Your task to perform on an android device: turn on showing notifications on the lock screen Image 0: 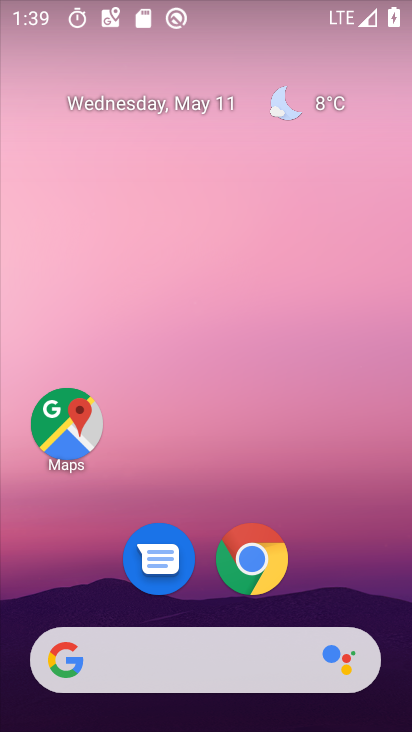
Step 0: drag from (159, 722) to (156, 223)
Your task to perform on an android device: turn on showing notifications on the lock screen Image 1: 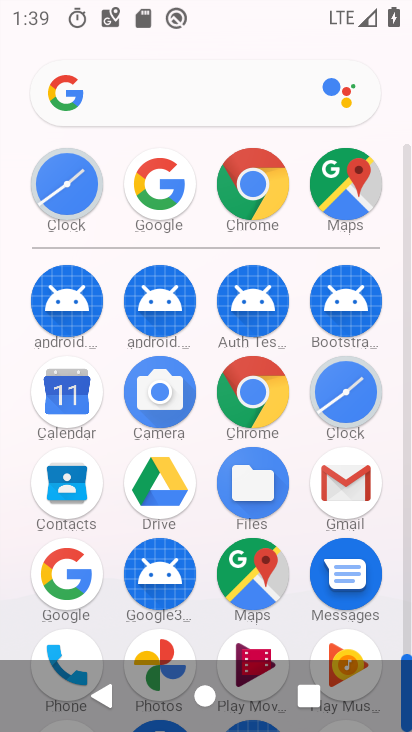
Step 1: drag from (209, 612) to (219, 235)
Your task to perform on an android device: turn on showing notifications on the lock screen Image 2: 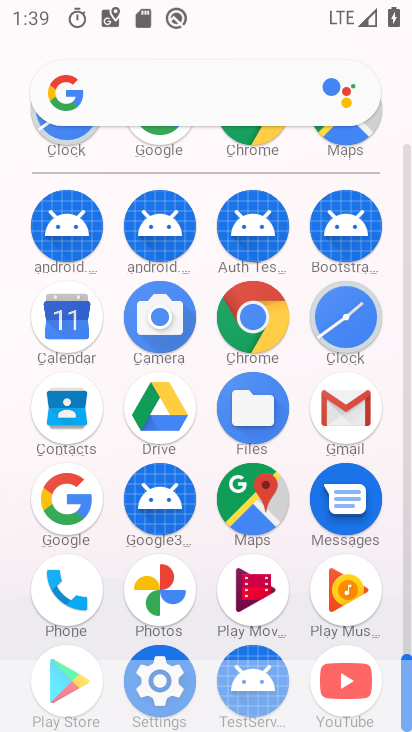
Step 2: drag from (208, 631) to (210, 207)
Your task to perform on an android device: turn on showing notifications on the lock screen Image 3: 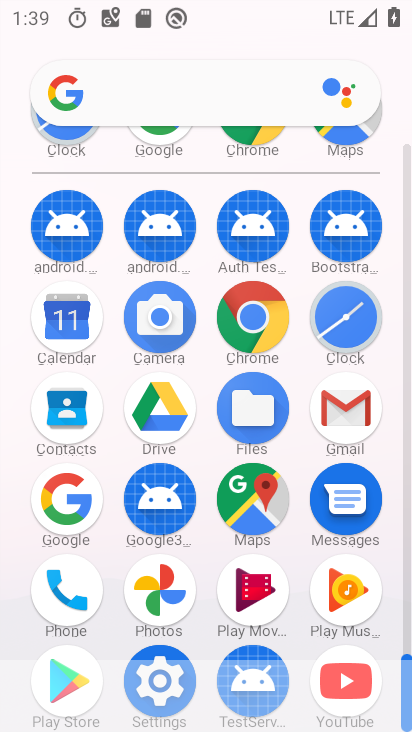
Step 3: click (157, 653)
Your task to perform on an android device: turn on showing notifications on the lock screen Image 4: 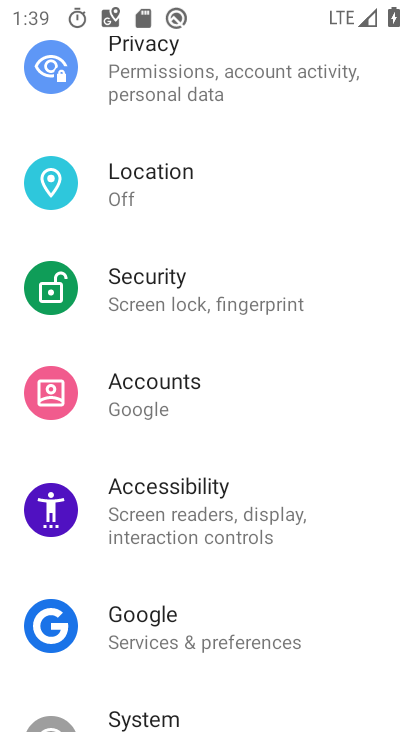
Step 4: drag from (174, 152) to (168, 555)
Your task to perform on an android device: turn on showing notifications on the lock screen Image 5: 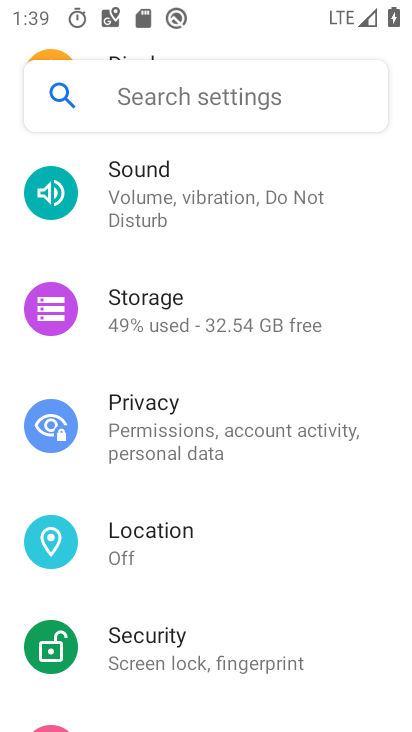
Step 5: drag from (226, 221) to (232, 588)
Your task to perform on an android device: turn on showing notifications on the lock screen Image 6: 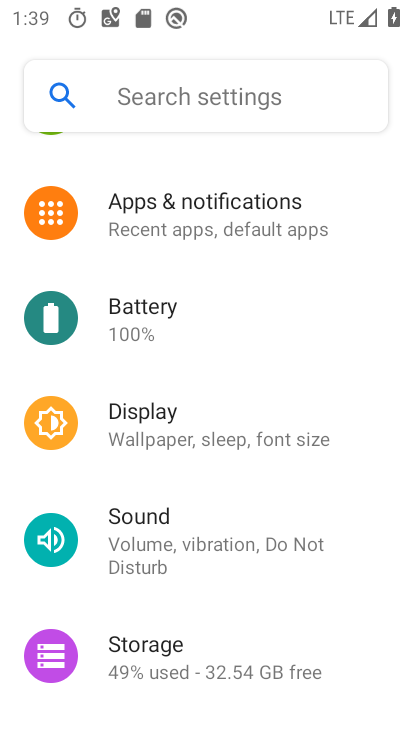
Step 6: click (154, 203)
Your task to perform on an android device: turn on showing notifications on the lock screen Image 7: 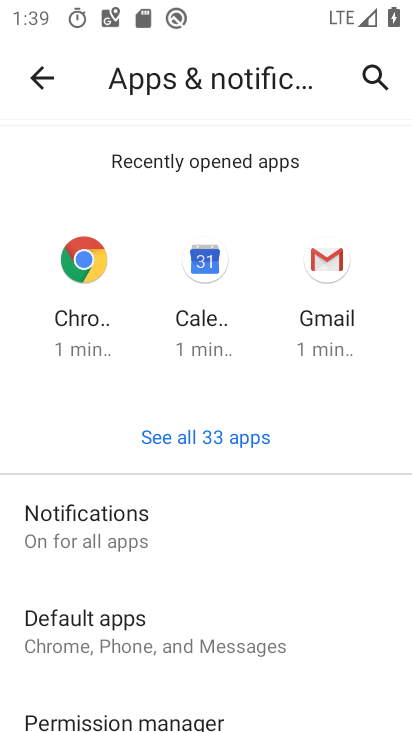
Step 7: click (94, 524)
Your task to perform on an android device: turn on showing notifications on the lock screen Image 8: 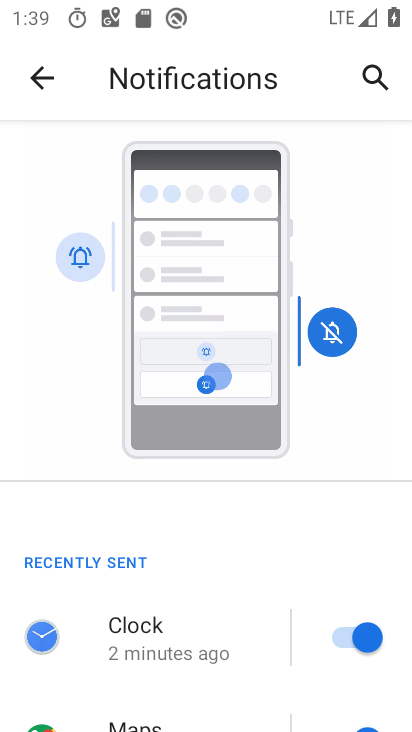
Step 8: task complete